Your task to perform on an android device: toggle sleep mode Image 0: 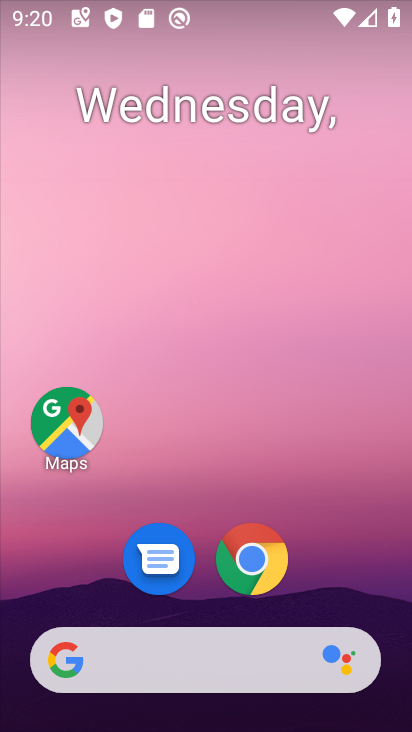
Step 0: drag from (294, 472) to (217, 29)
Your task to perform on an android device: toggle sleep mode Image 1: 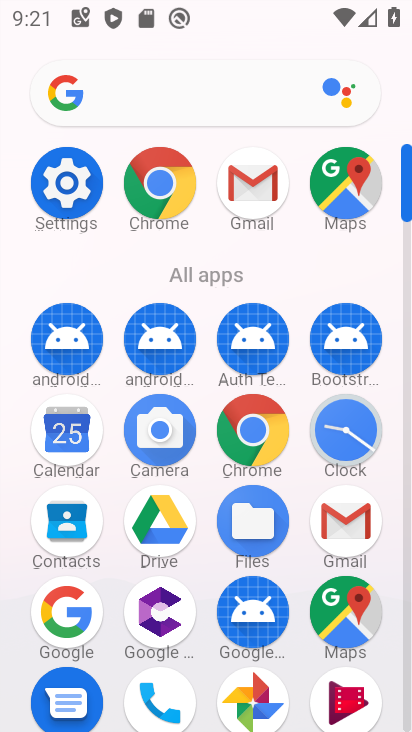
Step 1: click (73, 178)
Your task to perform on an android device: toggle sleep mode Image 2: 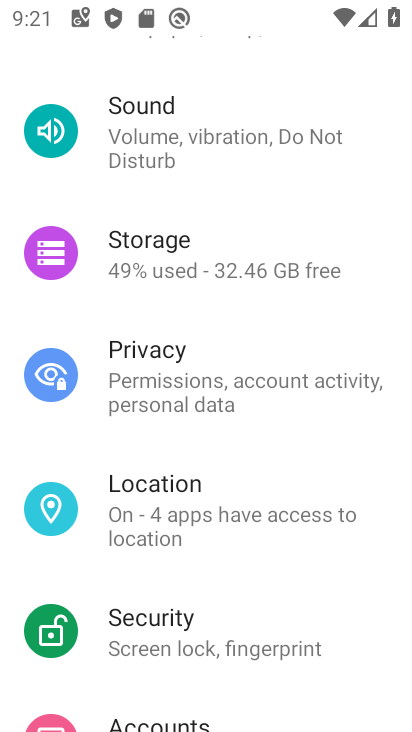
Step 2: drag from (281, 217) to (226, 560)
Your task to perform on an android device: toggle sleep mode Image 3: 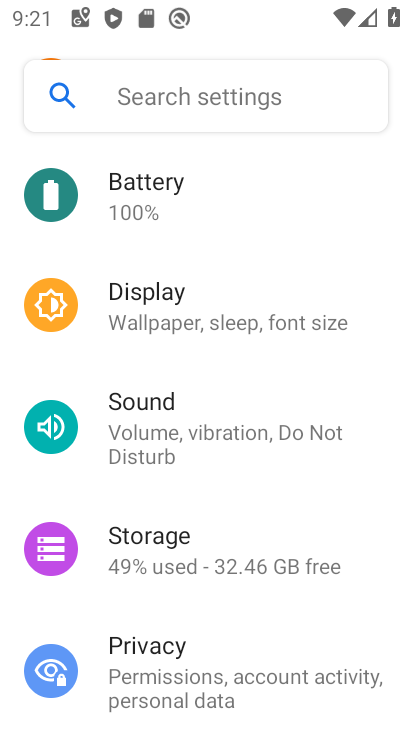
Step 3: click (275, 318)
Your task to perform on an android device: toggle sleep mode Image 4: 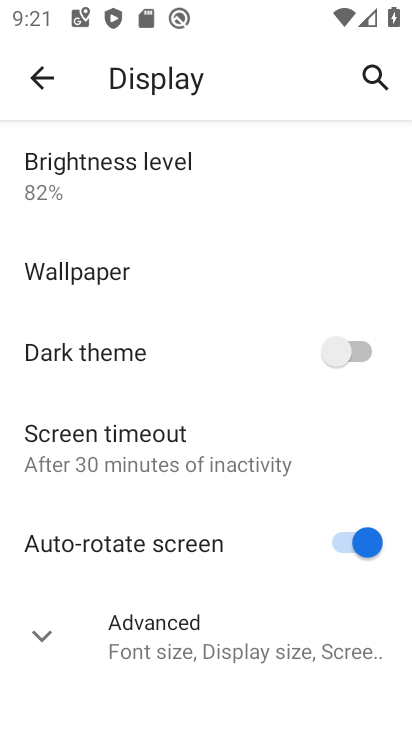
Step 4: click (203, 649)
Your task to perform on an android device: toggle sleep mode Image 5: 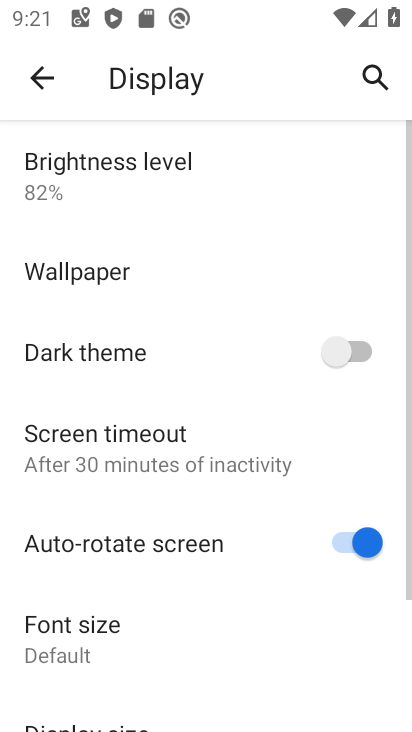
Step 5: task complete